Your task to perform on an android device: set the stopwatch Image 0: 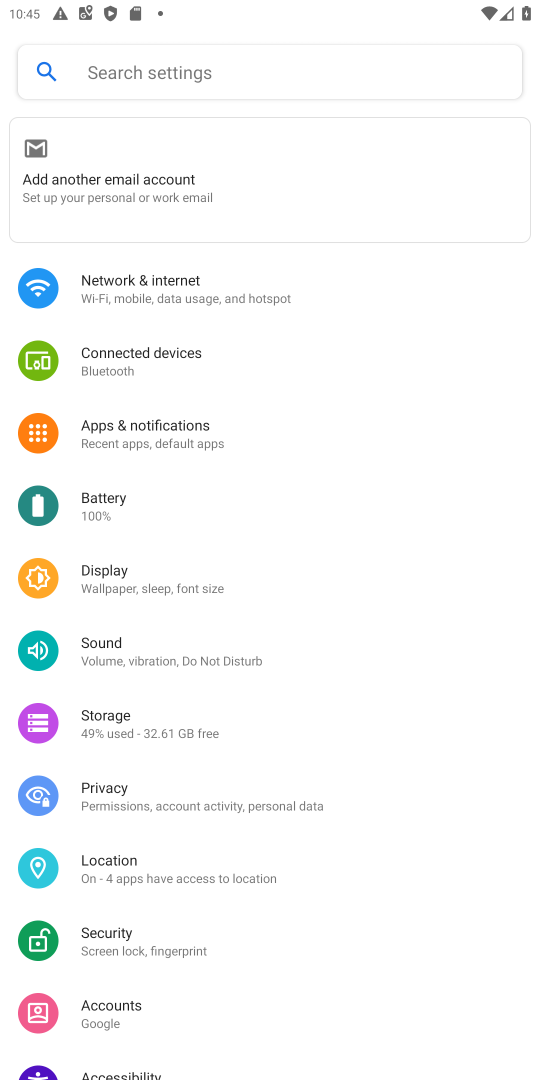
Step 0: press home button
Your task to perform on an android device: set the stopwatch Image 1: 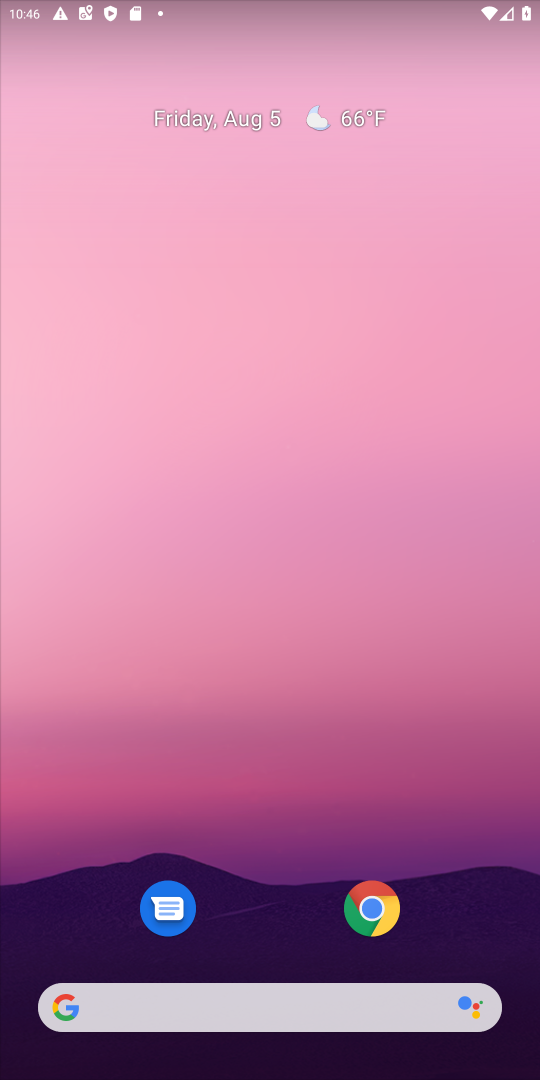
Step 1: drag from (34, 1039) to (316, 222)
Your task to perform on an android device: set the stopwatch Image 2: 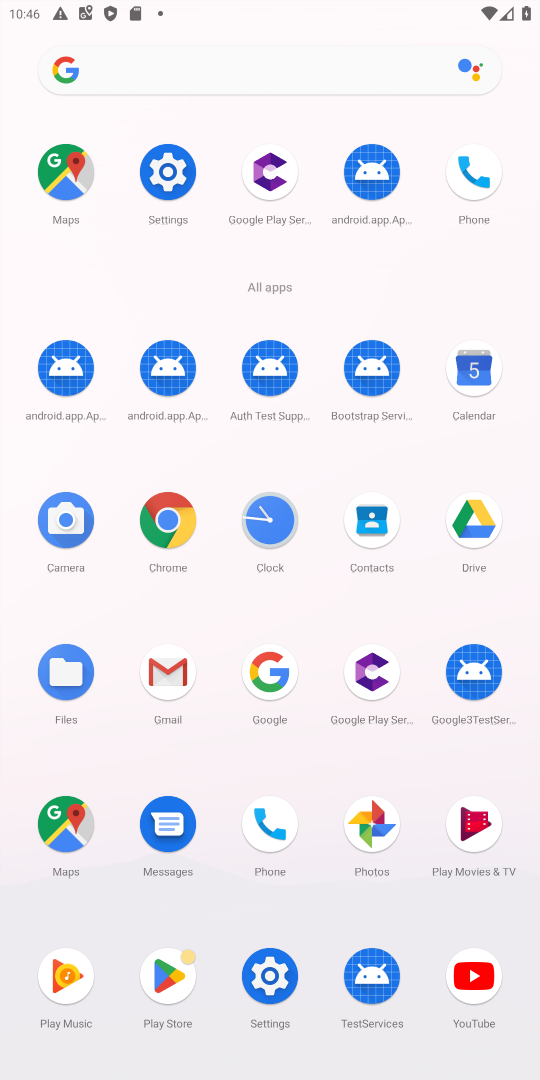
Step 2: click (279, 533)
Your task to perform on an android device: set the stopwatch Image 3: 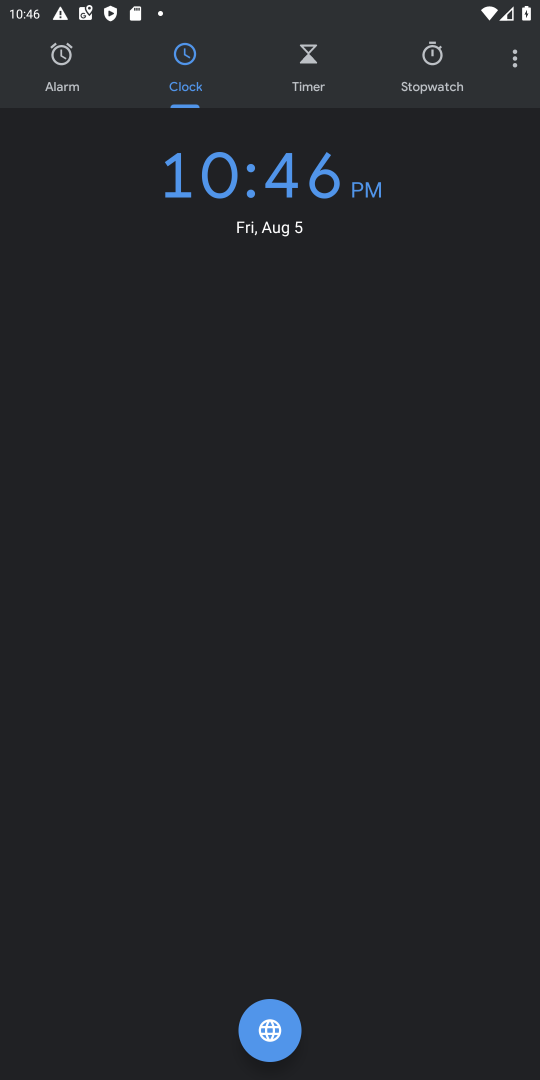
Step 3: click (420, 55)
Your task to perform on an android device: set the stopwatch Image 4: 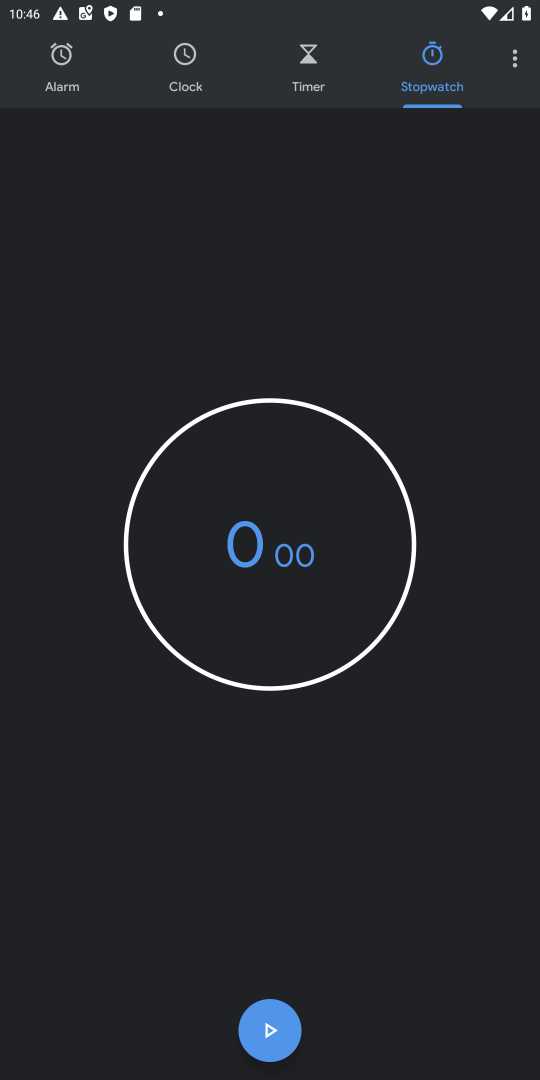
Step 4: click (287, 540)
Your task to perform on an android device: set the stopwatch Image 5: 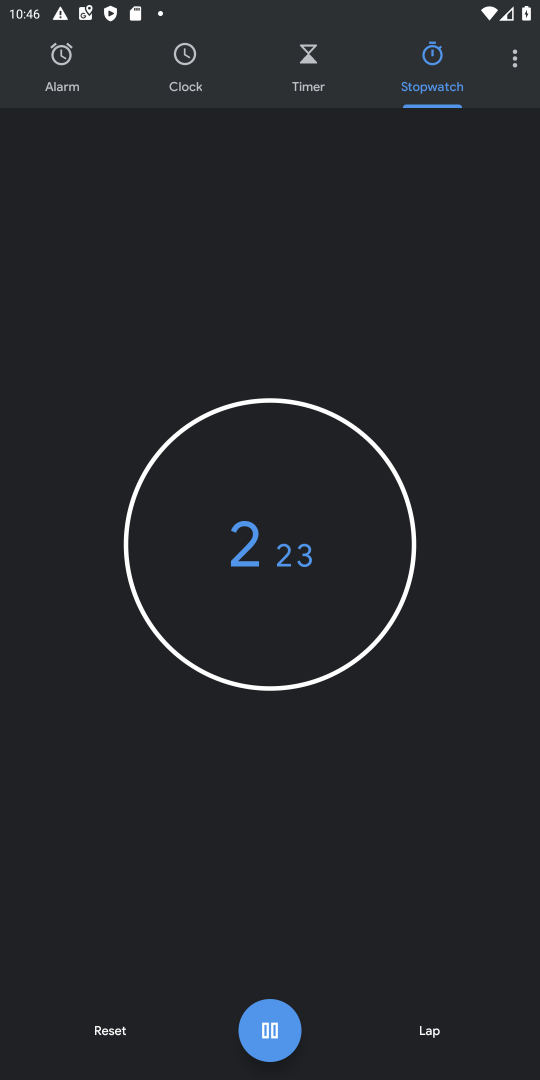
Step 5: click (287, 540)
Your task to perform on an android device: set the stopwatch Image 6: 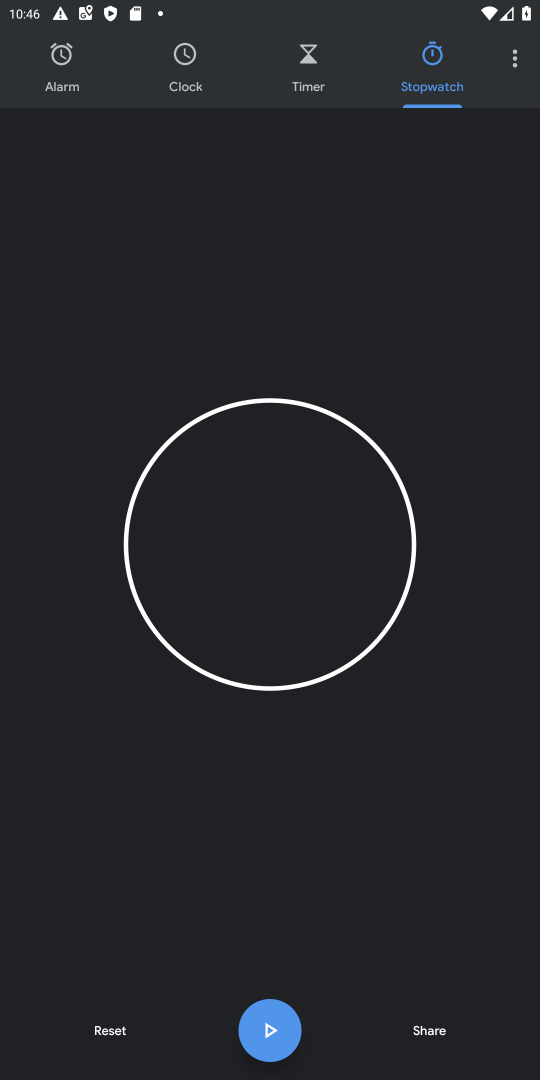
Step 6: task complete